Your task to perform on an android device: When is my next meeting? Image 0: 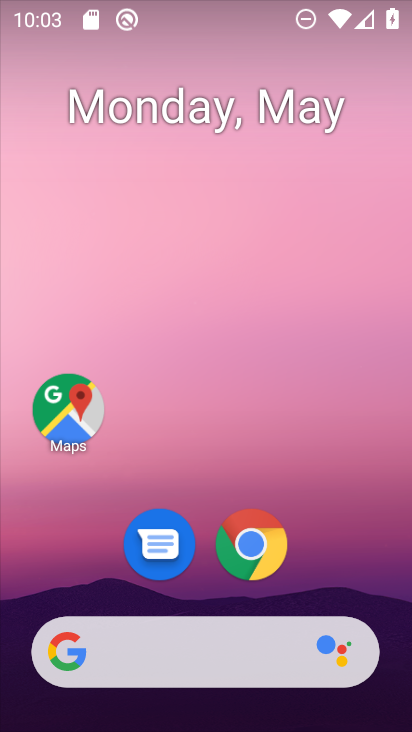
Step 0: drag from (319, 546) to (255, 150)
Your task to perform on an android device: When is my next meeting? Image 1: 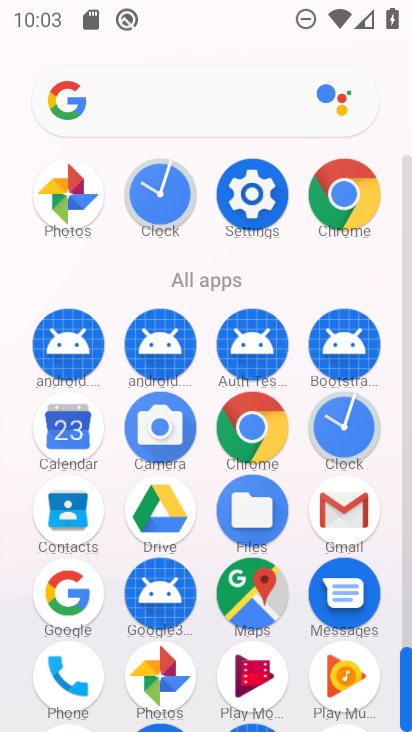
Step 1: click (55, 446)
Your task to perform on an android device: When is my next meeting? Image 2: 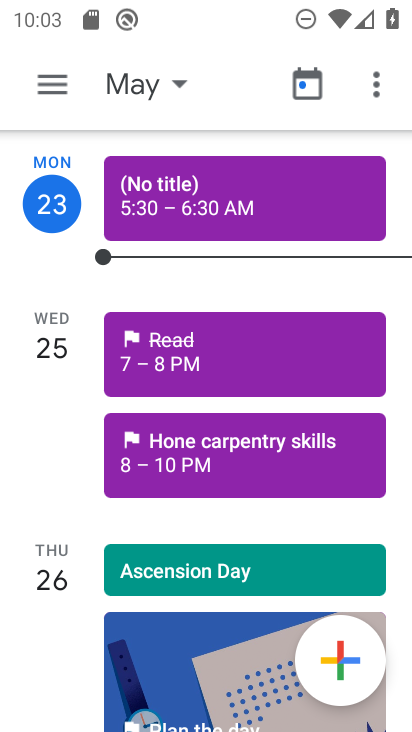
Step 2: click (49, 86)
Your task to perform on an android device: When is my next meeting? Image 3: 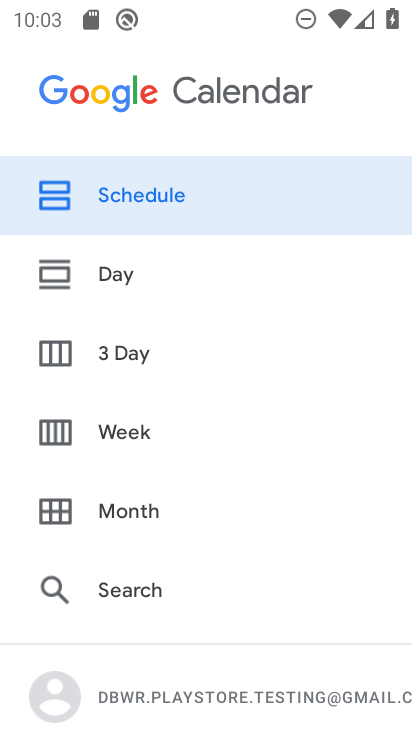
Step 3: click (49, 86)
Your task to perform on an android device: When is my next meeting? Image 4: 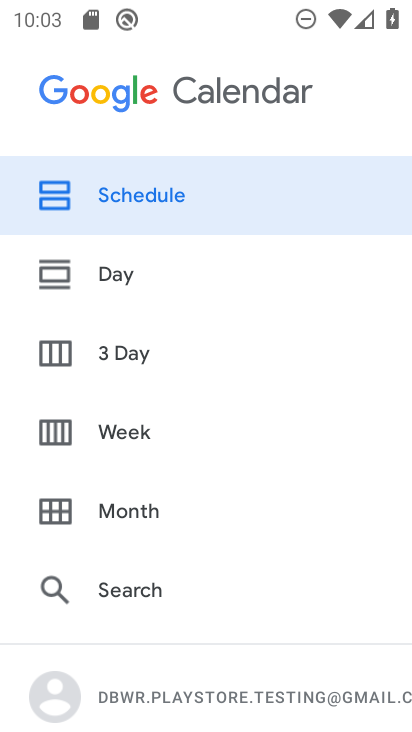
Step 4: click (82, 199)
Your task to perform on an android device: When is my next meeting? Image 5: 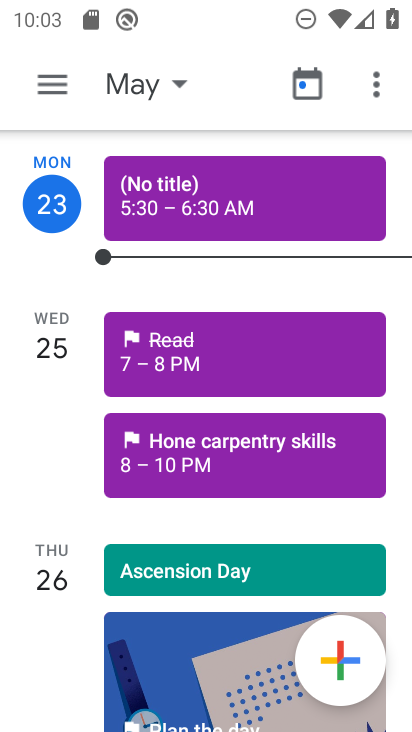
Step 5: click (171, 372)
Your task to perform on an android device: When is my next meeting? Image 6: 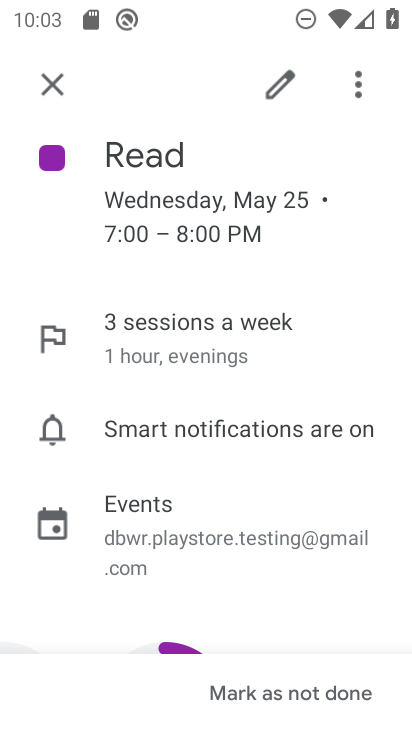
Step 6: click (52, 89)
Your task to perform on an android device: When is my next meeting? Image 7: 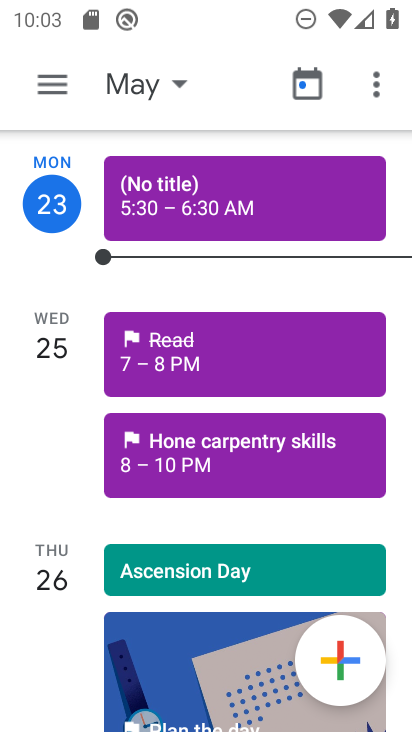
Step 7: click (204, 444)
Your task to perform on an android device: When is my next meeting? Image 8: 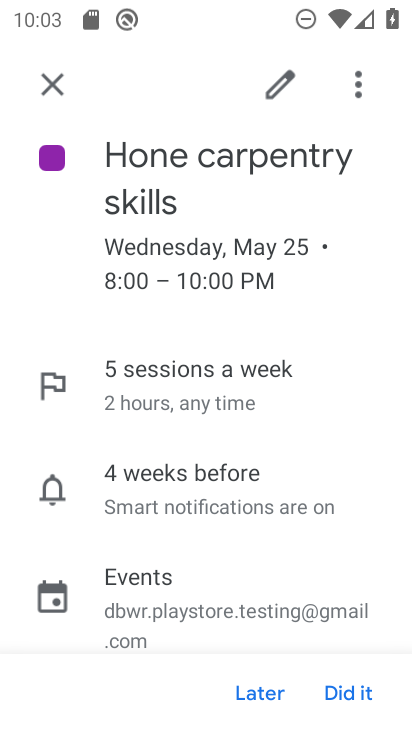
Step 8: click (56, 88)
Your task to perform on an android device: When is my next meeting? Image 9: 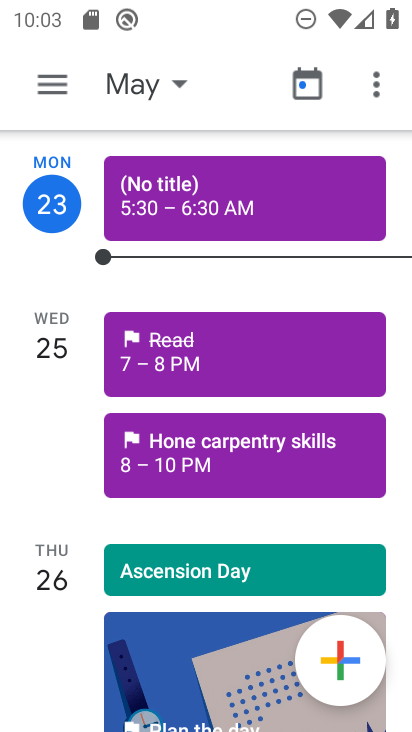
Step 9: task complete